Your task to perform on an android device: toggle pop-ups in chrome Image 0: 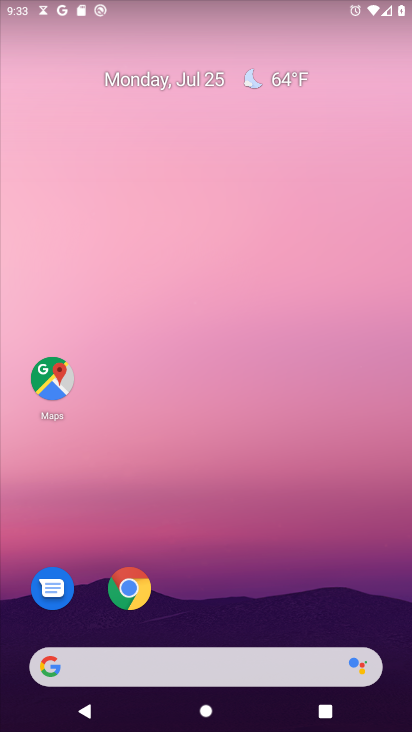
Step 0: click (130, 603)
Your task to perform on an android device: toggle pop-ups in chrome Image 1: 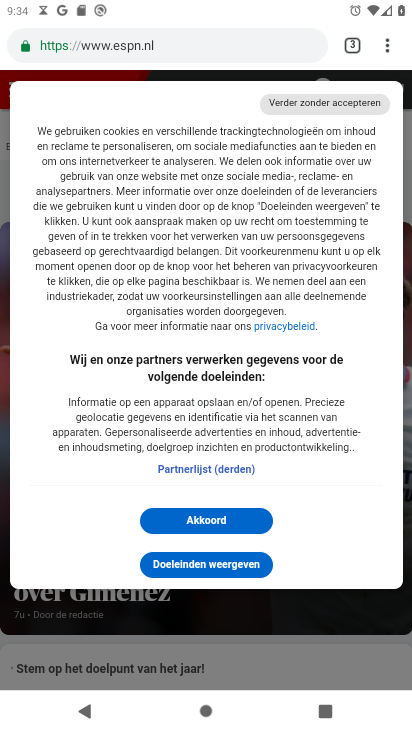
Step 1: drag from (388, 53) to (243, 555)
Your task to perform on an android device: toggle pop-ups in chrome Image 2: 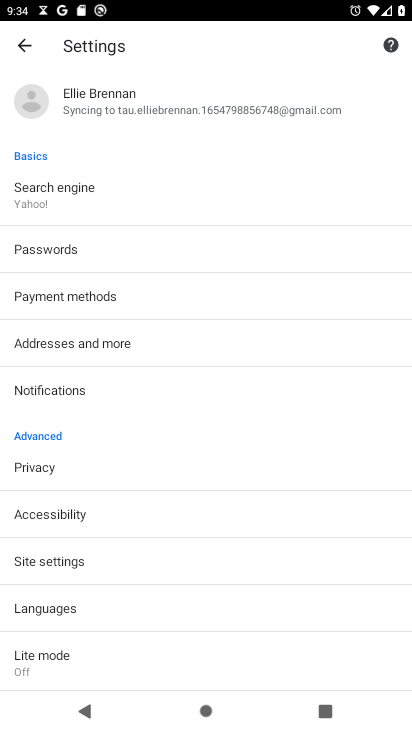
Step 2: click (71, 568)
Your task to perform on an android device: toggle pop-ups in chrome Image 3: 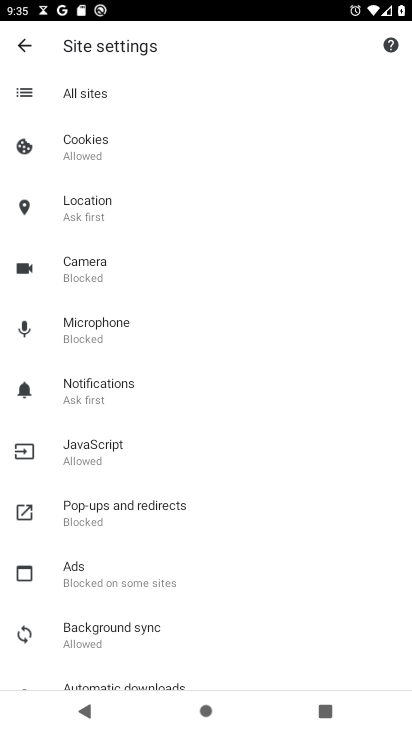
Step 3: click (97, 525)
Your task to perform on an android device: toggle pop-ups in chrome Image 4: 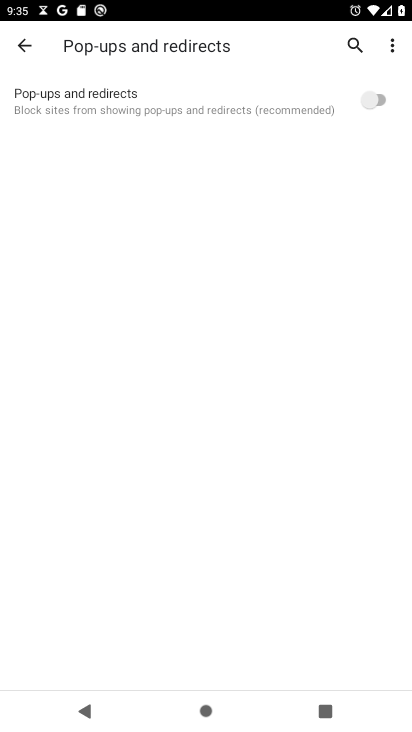
Step 4: click (378, 98)
Your task to perform on an android device: toggle pop-ups in chrome Image 5: 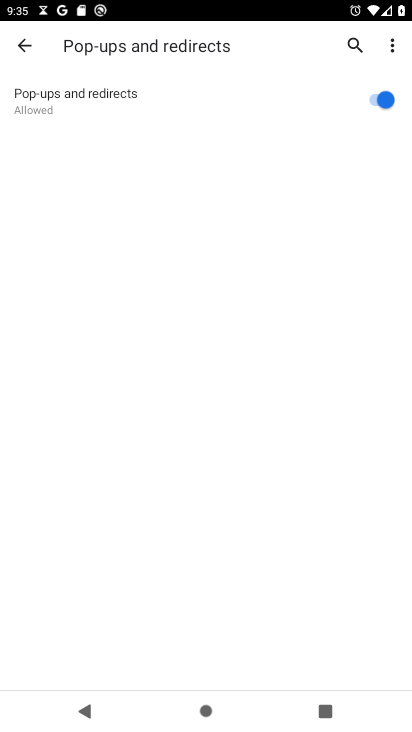
Step 5: task complete